Your task to perform on an android device: find snoozed emails in the gmail app Image 0: 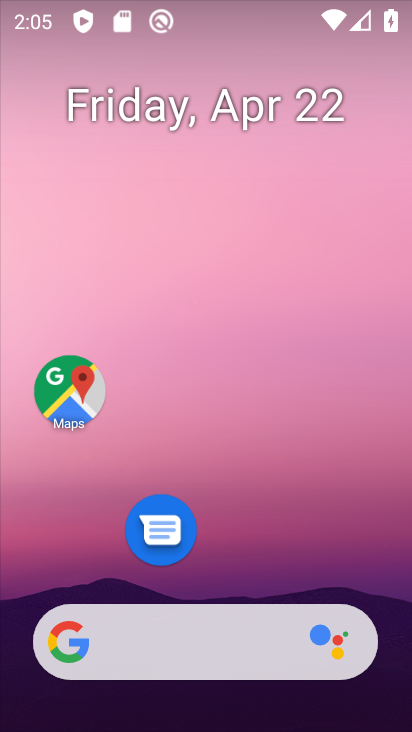
Step 0: drag from (246, 568) to (228, 12)
Your task to perform on an android device: find snoozed emails in the gmail app Image 1: 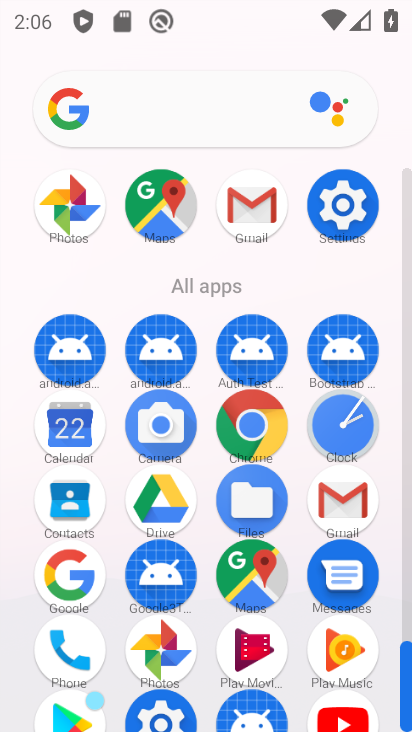
Step 1: click (247, 210)
Your task to perform on an android device: find snoozed emails in the gmail app Image 2: 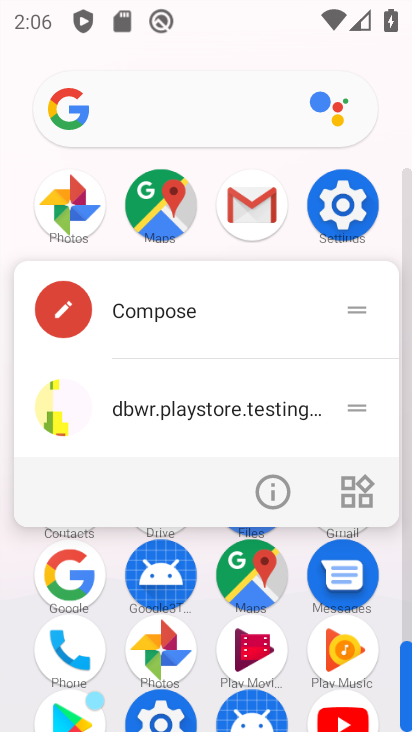
Step 2: click (249, 202)
Your task to perform on an android device: find snoozed emails in the gmail app Image 3: 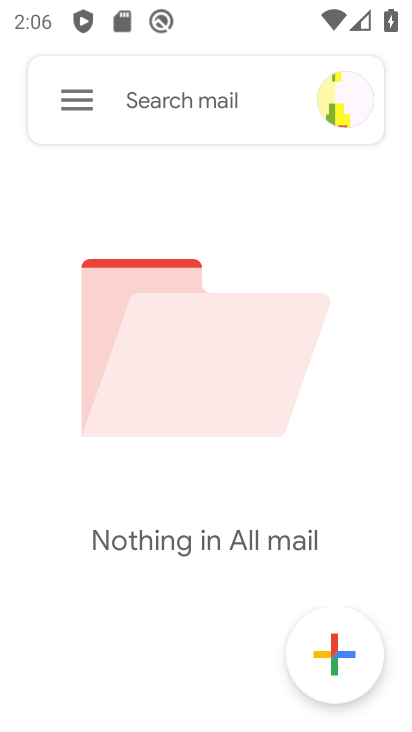
Step 3: click (70, 98)
Your task to perform on an android device: find snoozed emails in the gmail app Image 4: 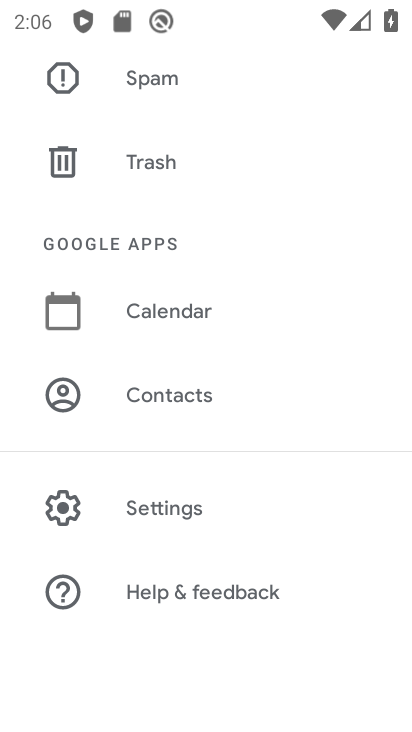
Step 4: drag from (209, 314) to (244, 690)
Your task to perform on an android device: find snoozed emails in the gmail app Image 5: 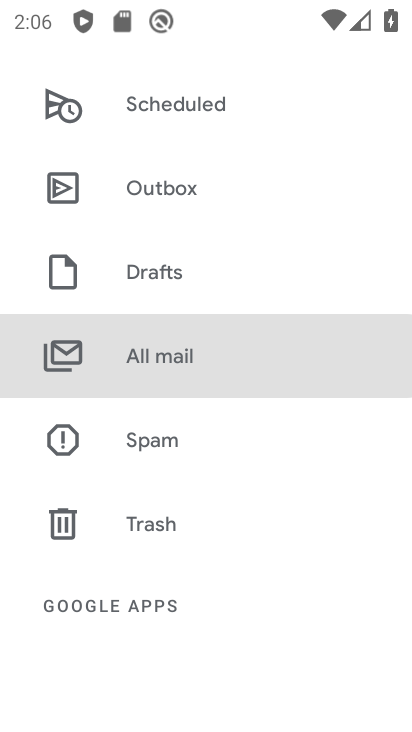
Step 5: drag from (220, 129) to (268, 558)
Your task to perform on an android device: find snoozed emails in the gmail app Image 6: 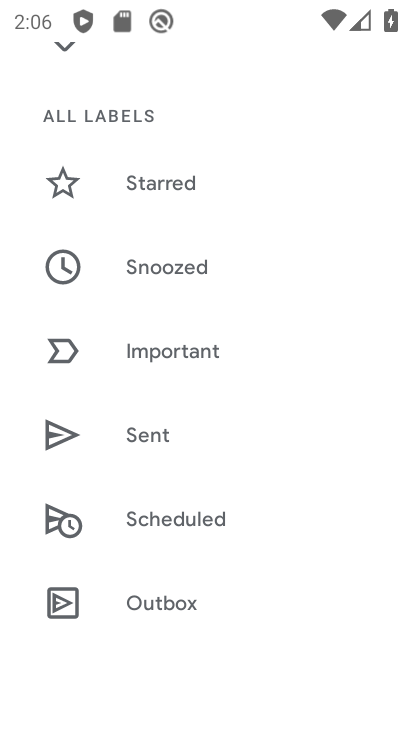
Step 6: click (166, 267)
Your task to perform on an android device: find snoozed emails in the gmail app Image 7: 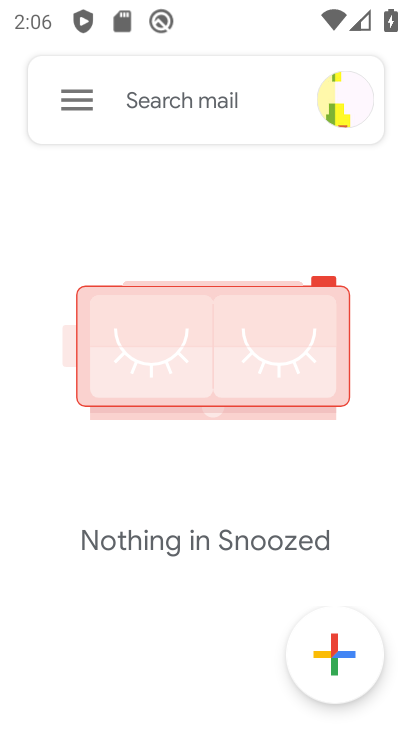
Step 7: task complete